Your task to perform on an android device: search for starred emails in the gmail app Image 0: 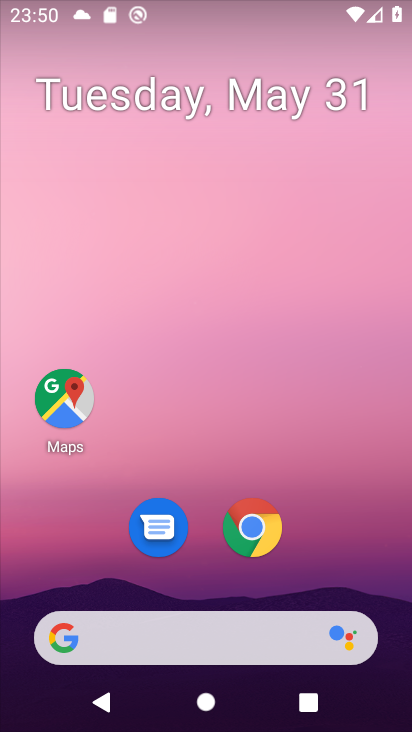
Step 0: drag from (337, 557) to (228, 16)
Your task to perform on an android device: search for starred emails in the gmail app Image 1: 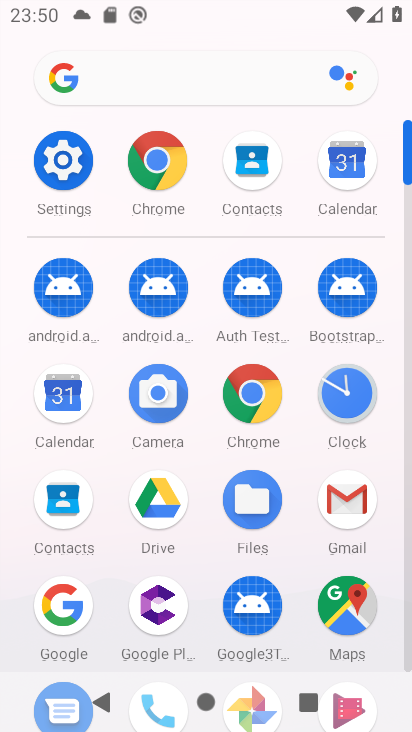
Step 1: click (329, 497)
Your task to perform on an android device: search for starred emails in the gmail app Image 2: 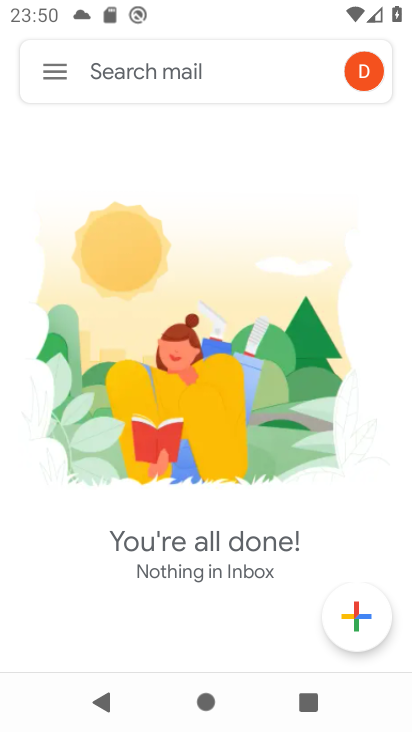
Step 2: click (162, 67)
Your task to perform on an android device: search for starred emails in the gmail app Image 3: 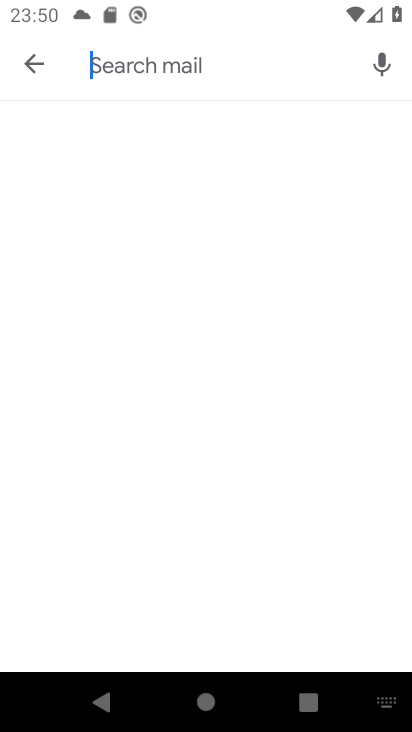
Step 3: type "starred"
Your task to perform on an android device: search for starred emails in the gmail app Image 4: 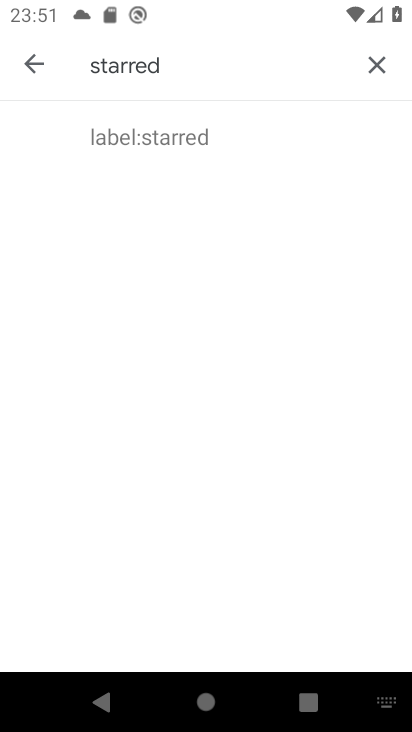
Step 4: click (165, 137)
Your task to perform on an android device: search for starred emails in the gmail app Image 5: 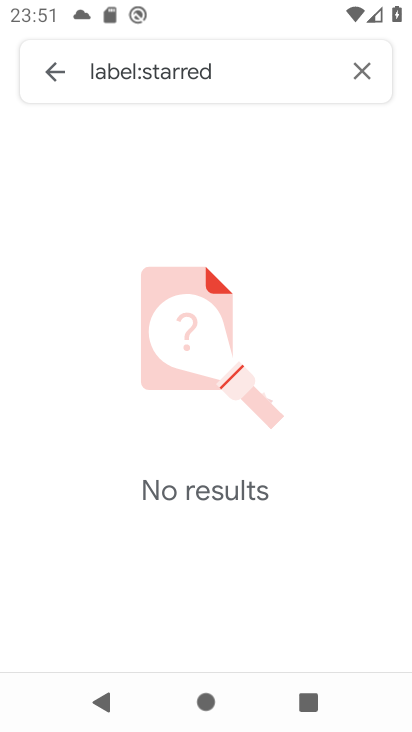
Step 5: task complete